Your task to perform on an android device: Open Google Image 0: 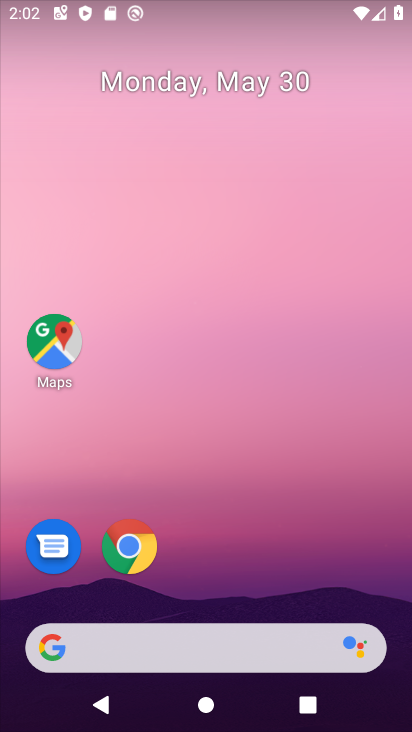
Step 0: press home button
Your task to perform on an android device: Open Google Image 1: 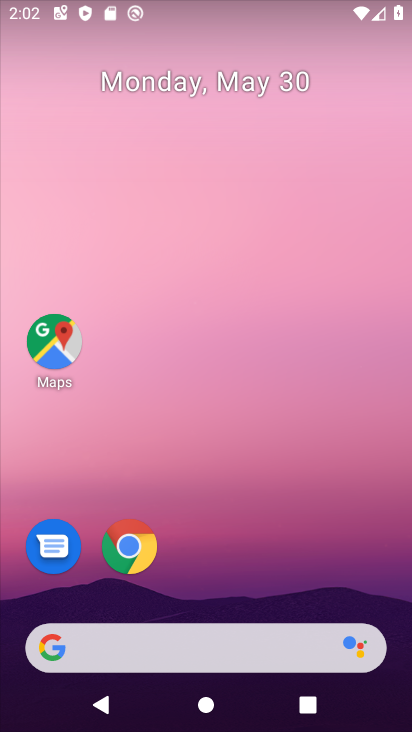
Step 1: drag from (232, 486) to (237, 81)
Your task to perform on an android device: Open Google Image 2: 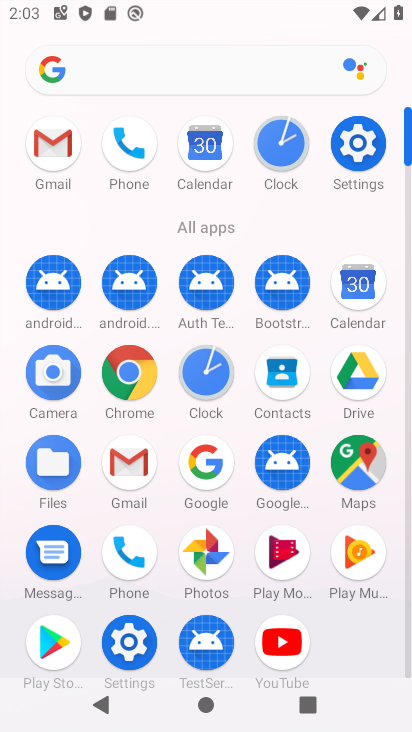
Step 2: click (201, 455)
Your task to perform on an android device: Open Google Image 3: 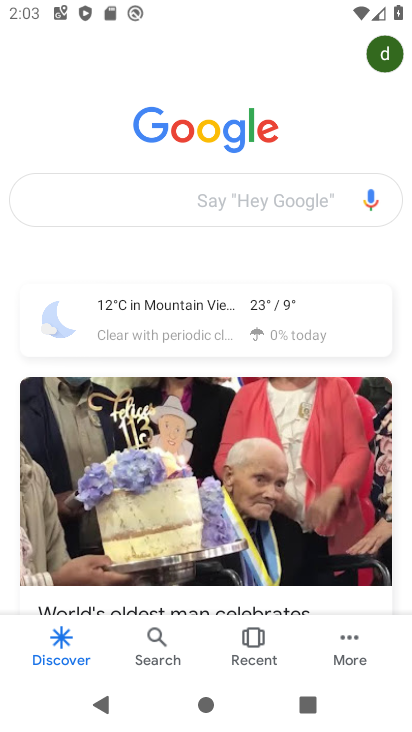
Step 3: task complete